Your task to perform on an android device: set the timer Image 0: 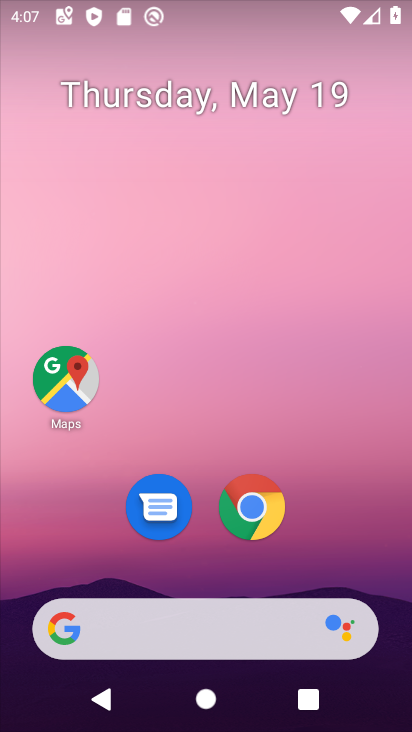
Step 0: drag from (401, 649) to (358, 304)
Your task to perform on an android device: set the timer Image 1: 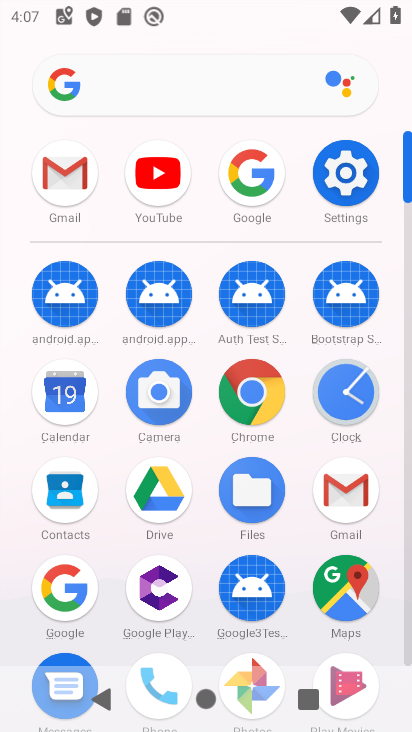
Step 1: click (348, 381)
Your task to perform on an android device: set the timer Image 2: 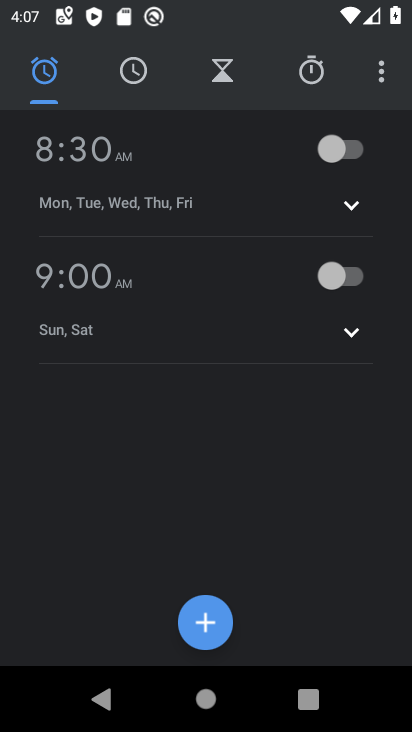
Step 2: click (322, 70)
Your task to perform on an android device: set the timer Image 3: 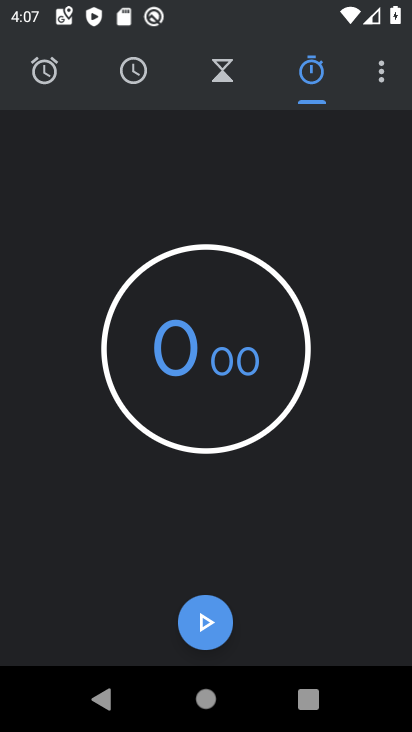
Step 3: click (219, 610)
Your task to perform on an android device: set the timer Image 4: 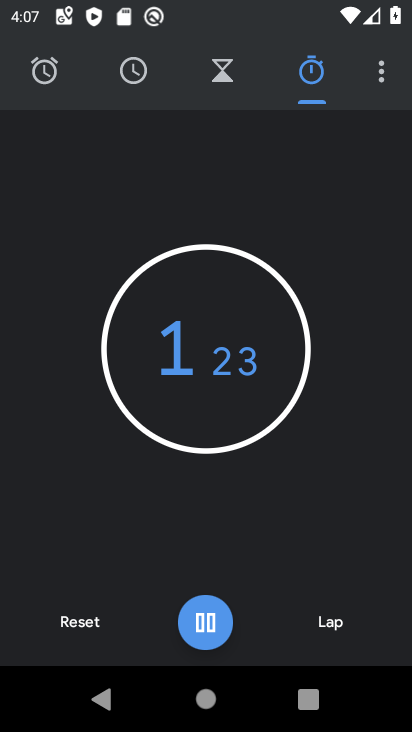
Step 4: task complete